Your task to perform on an android device: turn on bluetooth scan Image 0: 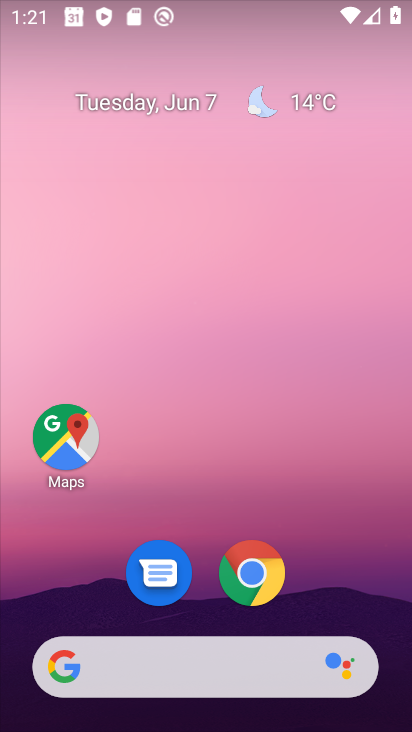
Step 0: press home button
Your task to perform on an android device: turn on bluetooth scan Image 1: 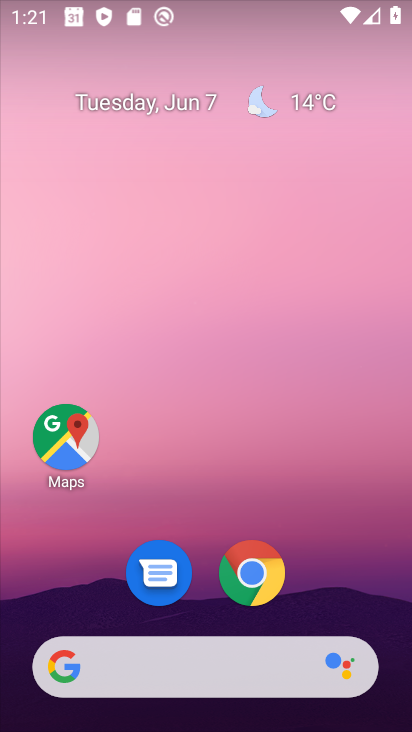
Step 1: drag from (200, 619) to (202, 12)
Your task to perform on an android device: turn on bluetooth scan Image 2: 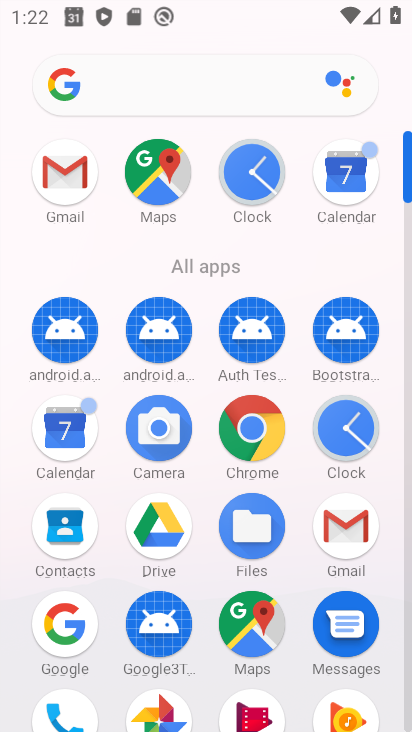
Step 2: drag from (208, 581) to (207, 124)
Your task to perform on an android device: turn on bluetooth scan Image 3: 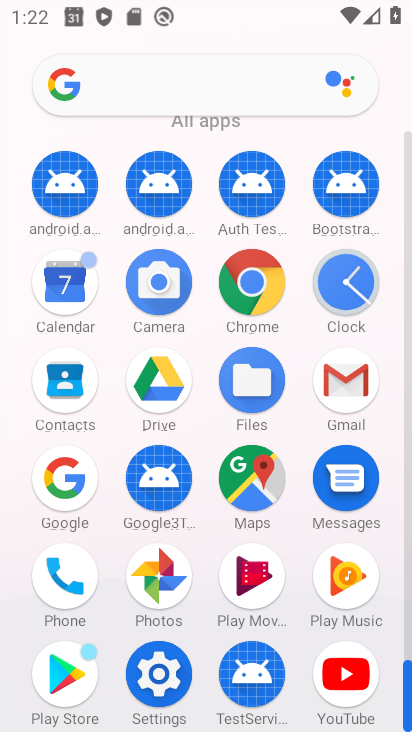
Step 3: click (156, 668)
Your task to perform on an android device: turn on bluetooth scan Image 4: 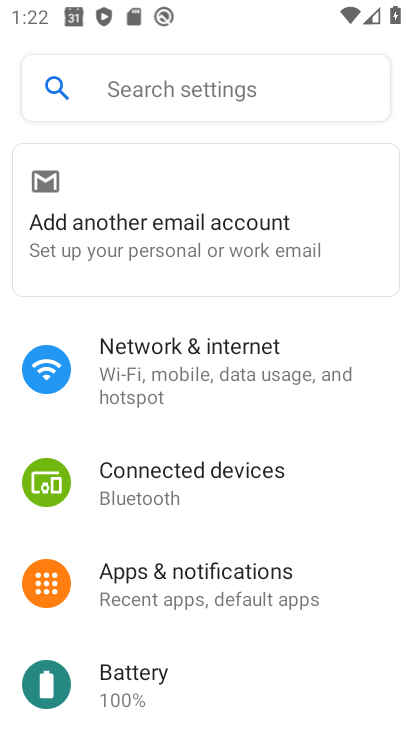
Step 4: drag from (215, 668) to (207, 120)
Your task to perform on an android device: turn on bluetooth scan Image 5: 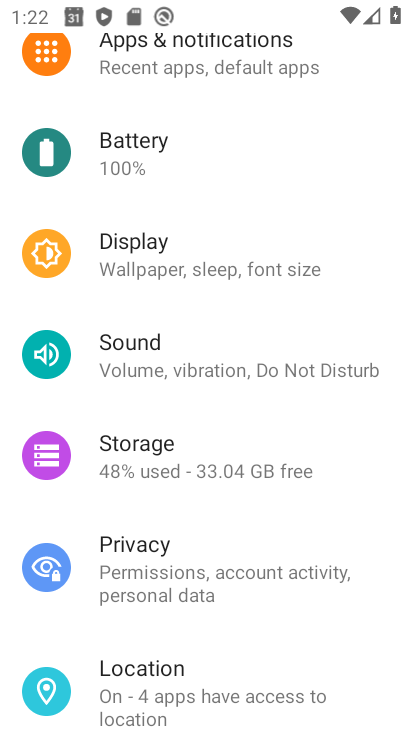
Step 5: click (200, 677)
Your task to perform on an android device: turn on bluetooth scan Image 6: 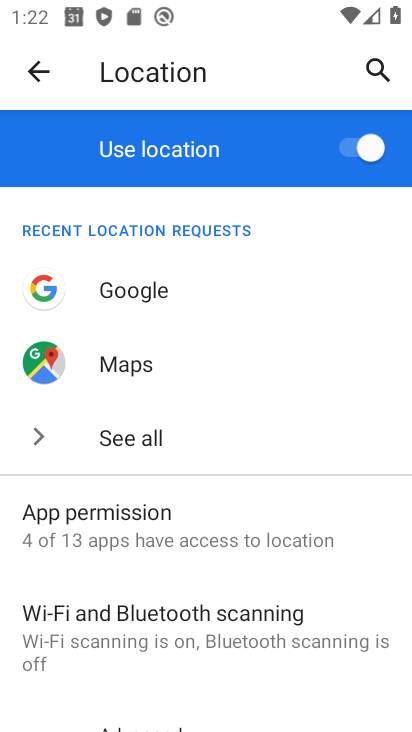
Step 6: click (256, 625)
Your task to perform on an android device: turn on bluetooth scan Image 7: 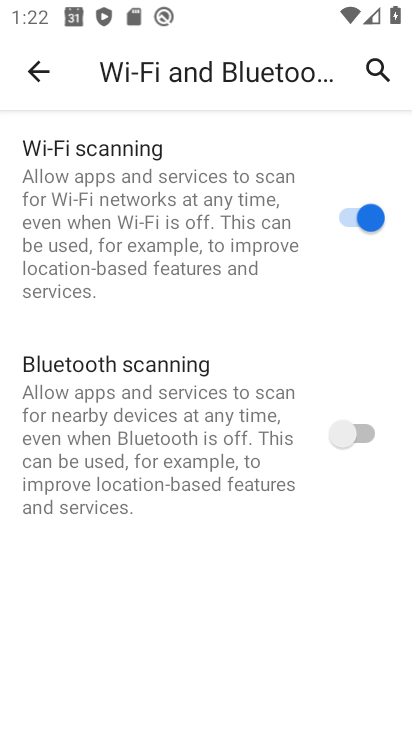
Step 7: click (363, 430)
Your task to perform on an android device: turn on bluetooth scan Image 8: 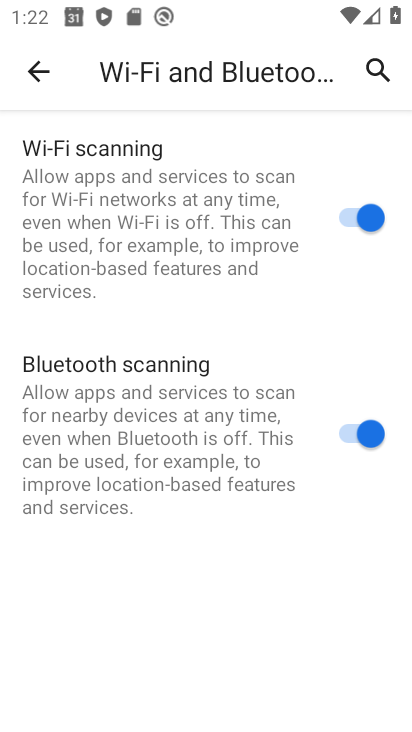
Step 8: task complete